Your task to perform on an android device: toggle improve location accuracy Image 0: 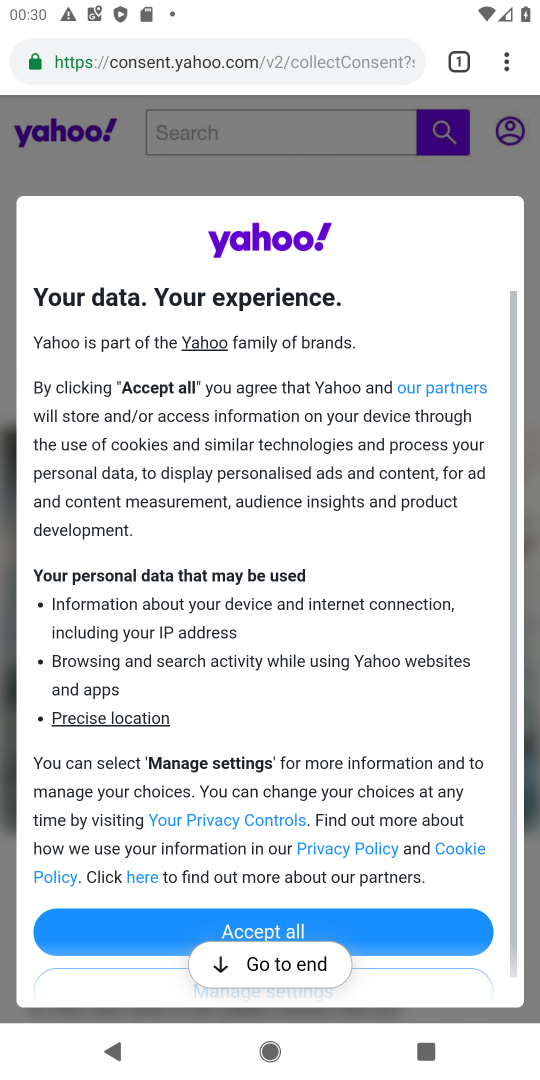
Step 0: press home button
Your task to perform on an android device: toggle improve location accuracy Image 1: 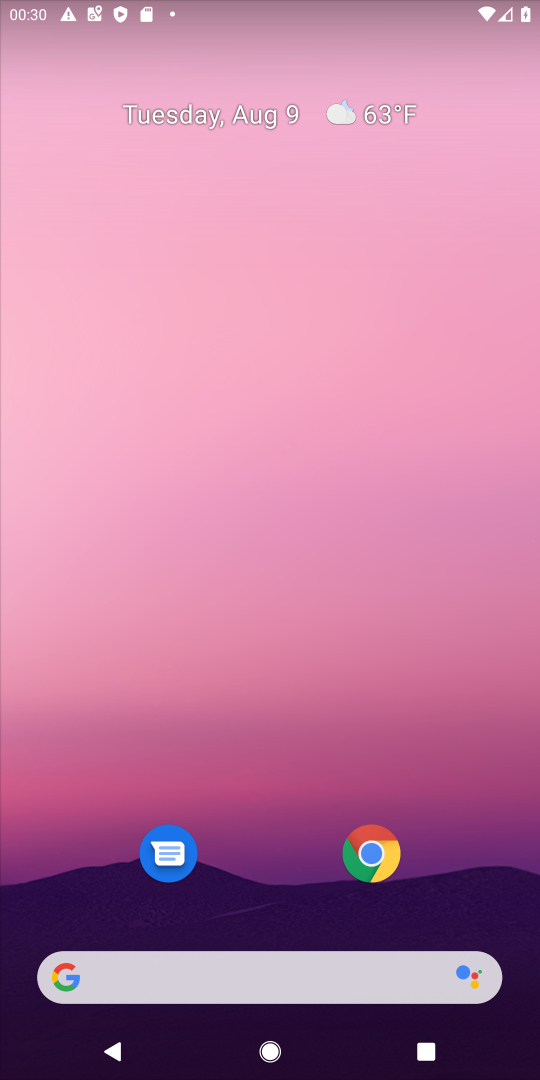
Step 1: drag from (268, 879) to (336, 107)
Your task to perform on an android device: toggle improve location accuracy Image 2: 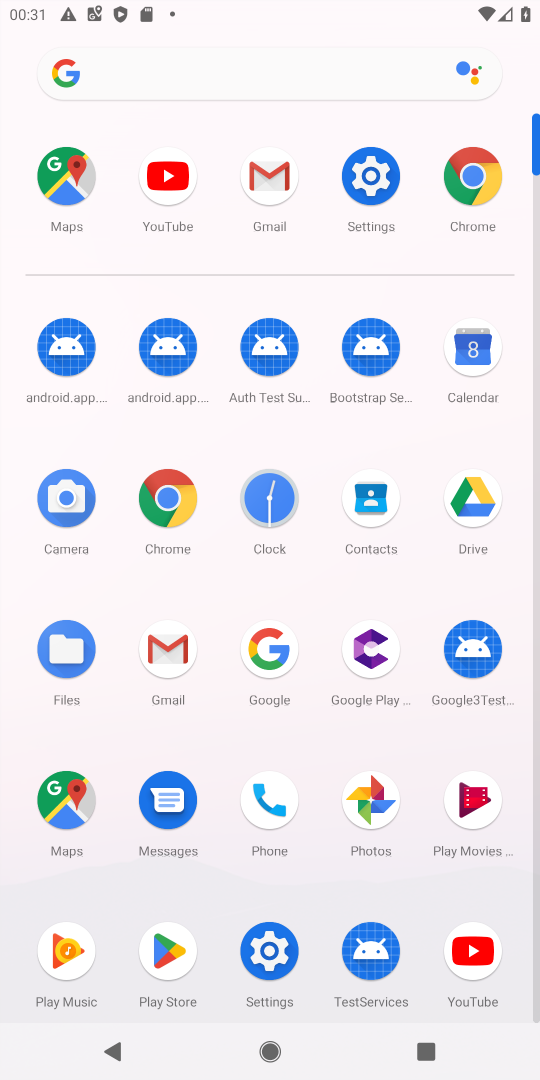
Step 2: click (369, 173)
Your task to perform on an android device: toggle improve location accuracy Image 3: 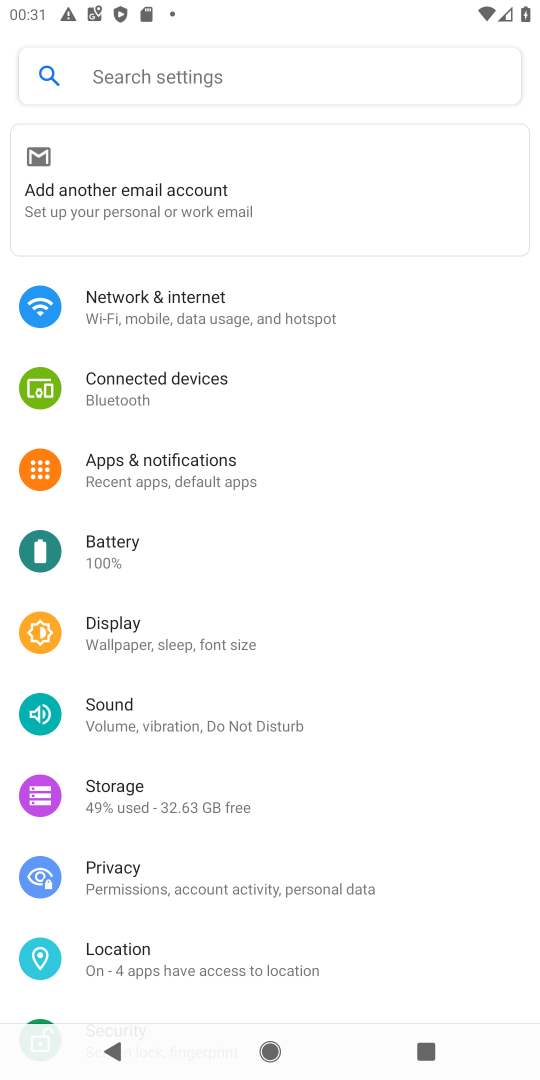
Step 3: click (127, 953)
Your task to perform on an android device: toggle improve location accuracy Image 4: 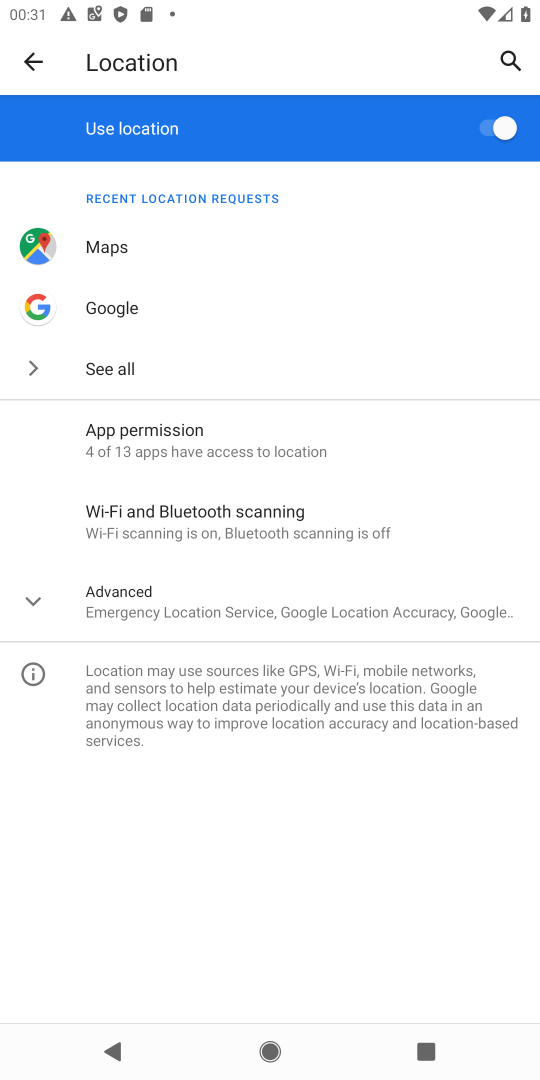
Step 4: click (222, 602)
Your task to perform on an android device: toggle improve location accuracy Image 5: 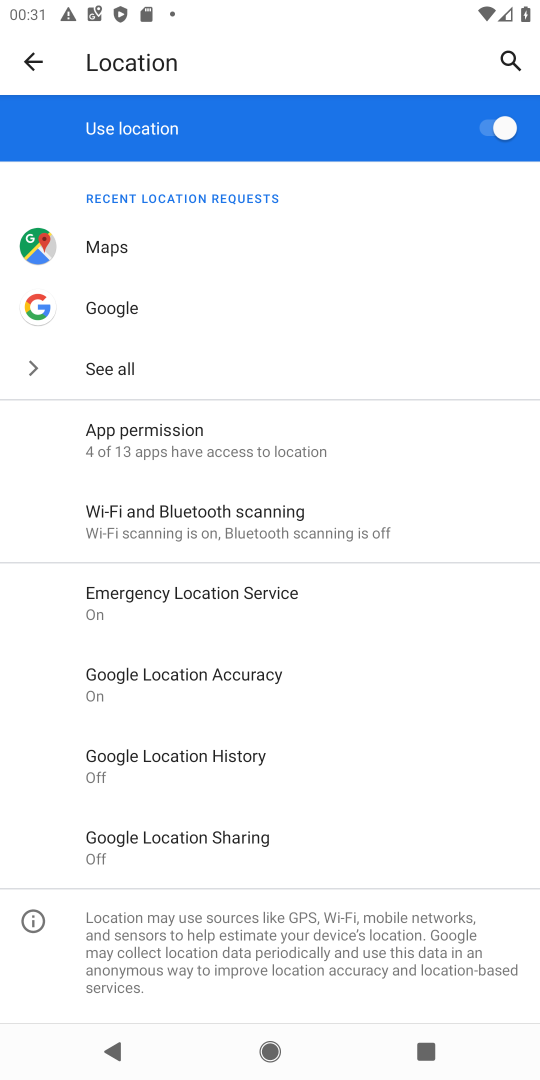
Step 5: click (258, 668)
Your task to perform on an android device: toggle improve location accuracy Image 6: 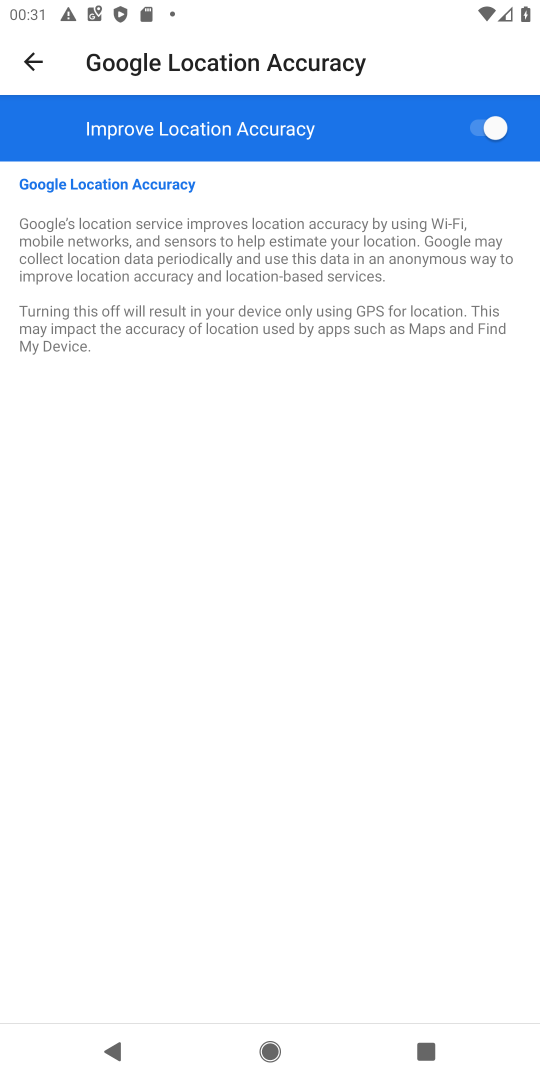
Step 6: click (488, 138)
Your task to perform on an android device: toggle improve location accuracy Image 7: 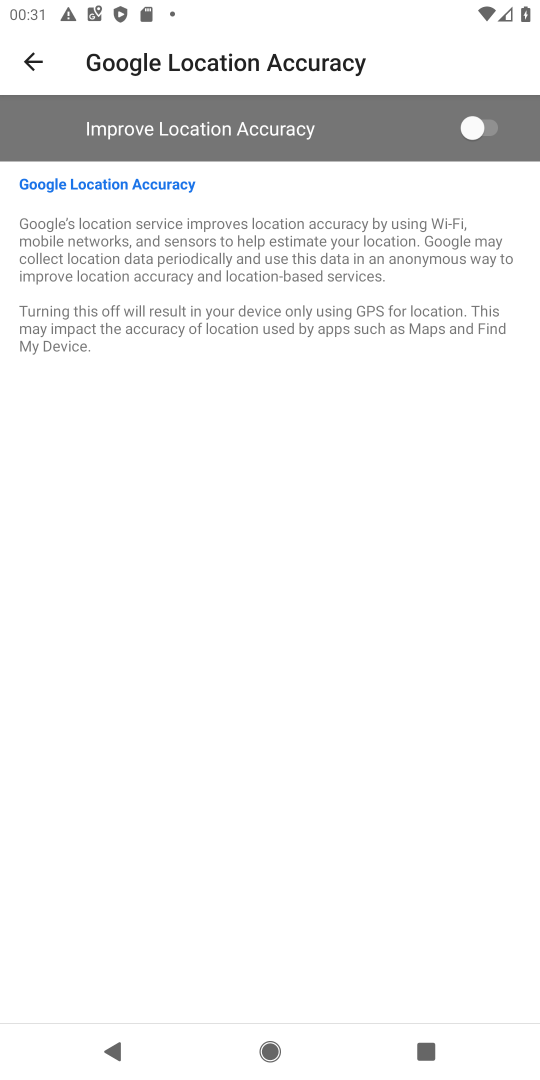
Step 7: task complete